Your task to perform on an android device: Open Android settings Image 0: 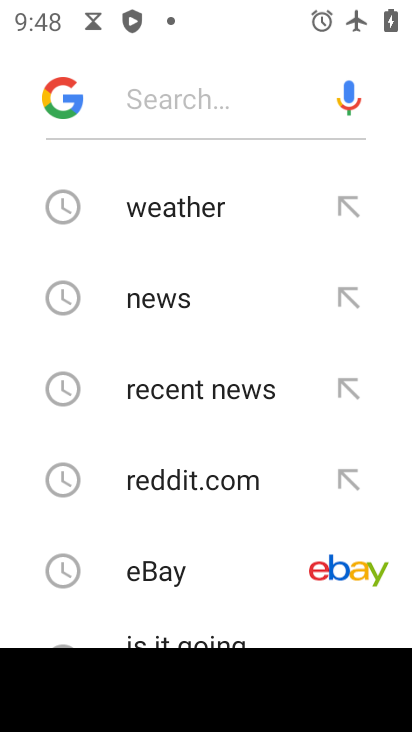
Step 0: press home button
Your task to perform on an android device: Open Android settings Image 1: 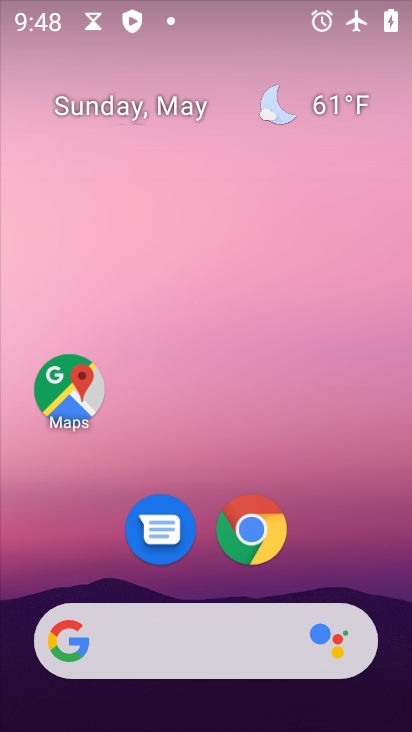
Step 1: drag from (231, 711) to (212, 318)
Your task to perform on an android device: Open Android settings Image 2: 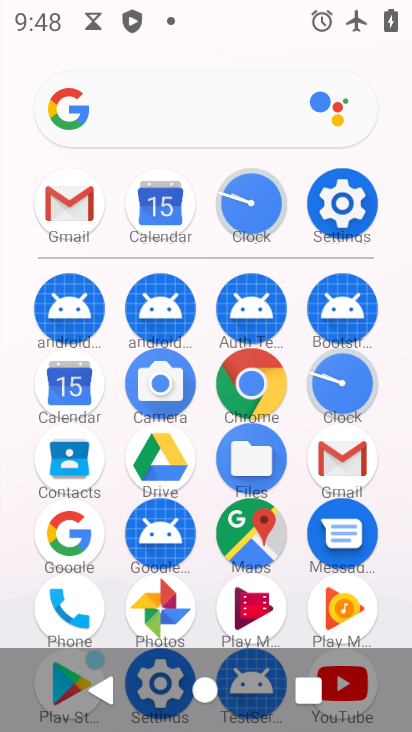
Step 2: click (333, 192)
Your task to perform on an android device: Open Android settings Image 3: 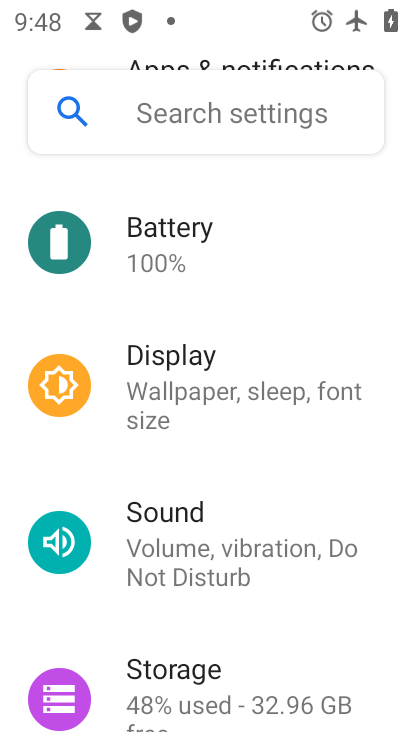
Step 3: task complete